Your task to perform on an android device: Open the Play Movies app and select the watchlist tab. Image 0: 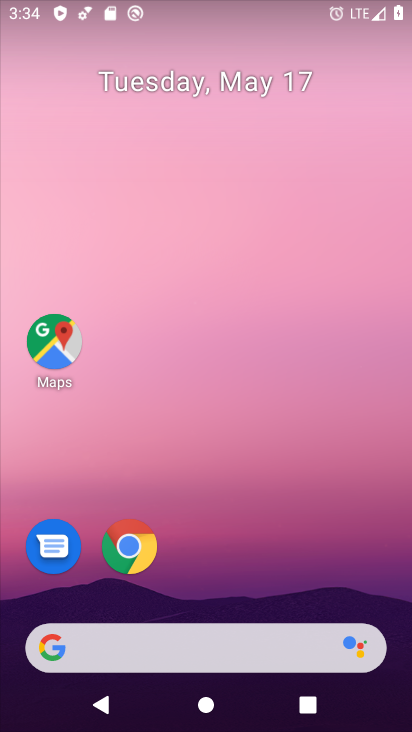
Step 0: drag from (322, 570) to (345, 101)
Your task to perform on an android device: Open the Play Movies app and select the watchlist tab. Image 1: 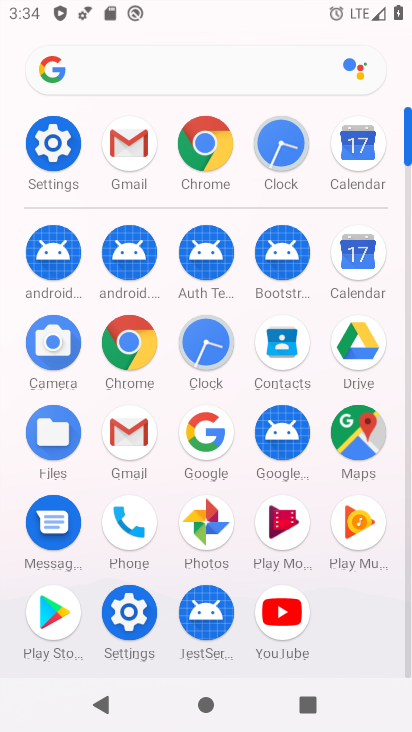
Step 1: click (268, 524)
Your task to perform on an android device: Open the Play Movies app and select the watchlist tab. Image 2: 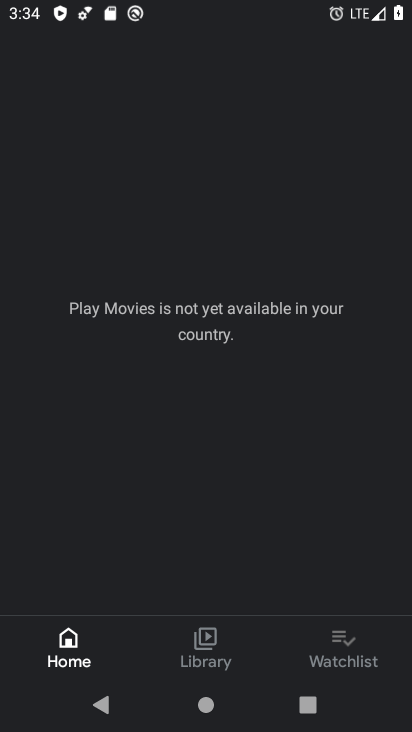
Step 2: click (365, 648)
Your task to perform on an android device: Open the Play Movies app and select the watchlist tab. Image 3: 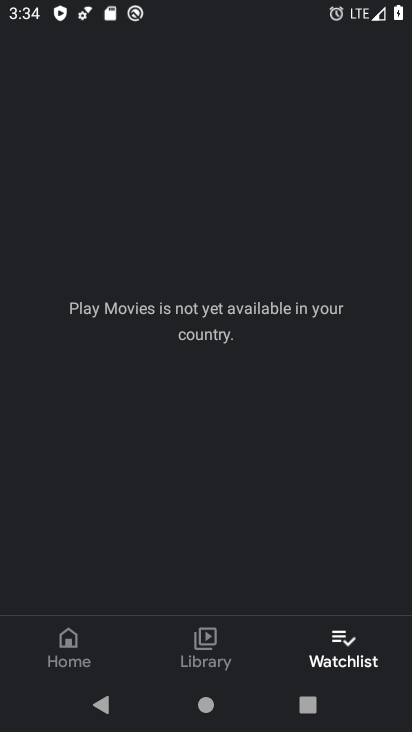
Step 3: task complete